Your task to perform on an android device: delete location history Image 0: 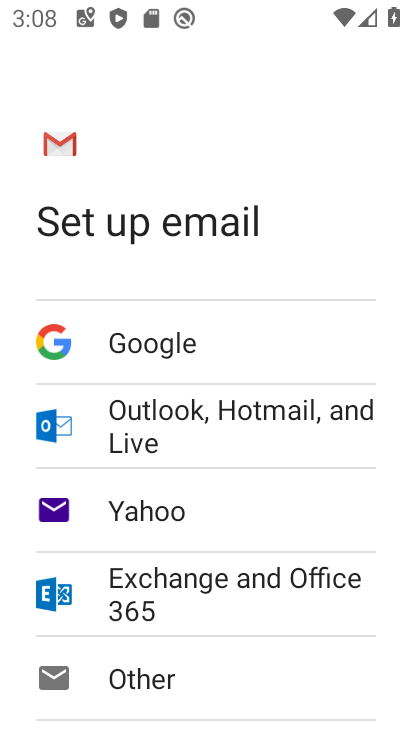
Step 0: press home button
Your task to perform on an android device: delete location history Image 1: 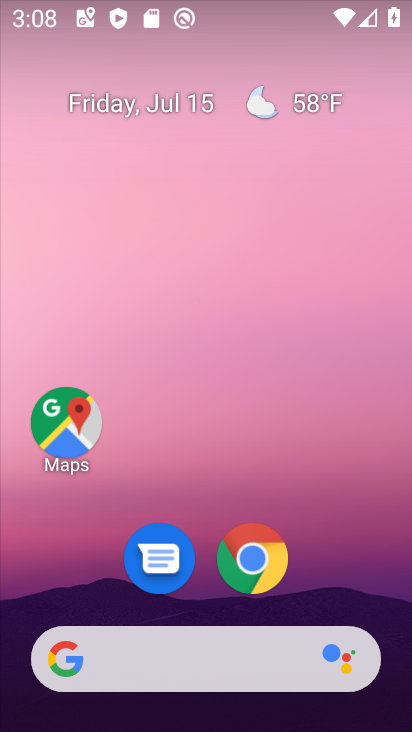
Step 1: drag from (340, 593) to (365, 69)
Your task to perform on an android device: delete location history Image 2: 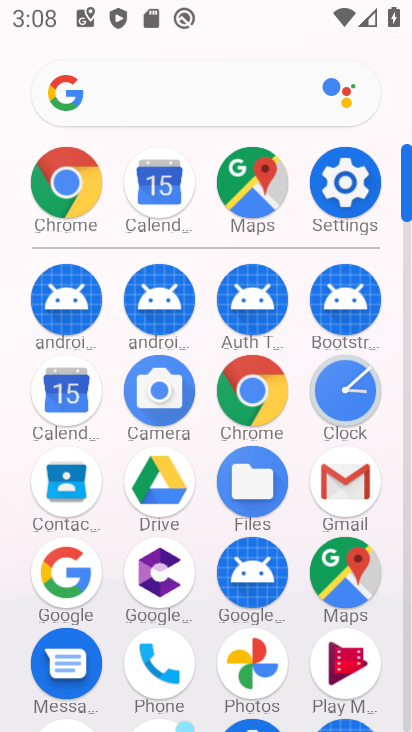
Step 2: click (262, 184)
Your task to perform on an android device: delete location history Image 3: 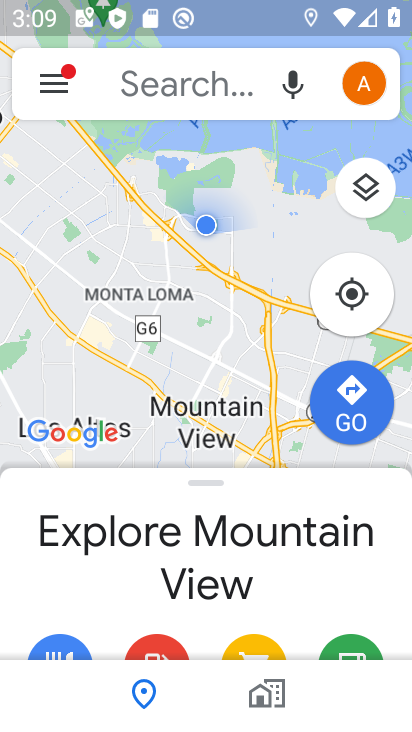
Step 3: click (54, 88)
Your task to perform on an android device: delete location history Image 4: 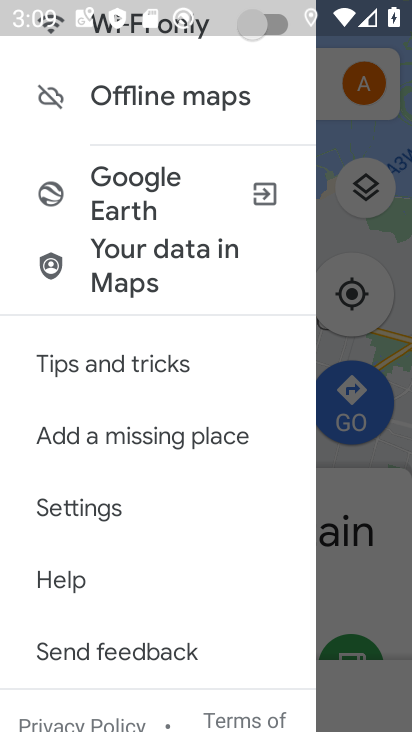
Step 4: drag from (197, 222) to (208, 379)
Your task to perform on an android device: delete location history Image 5: 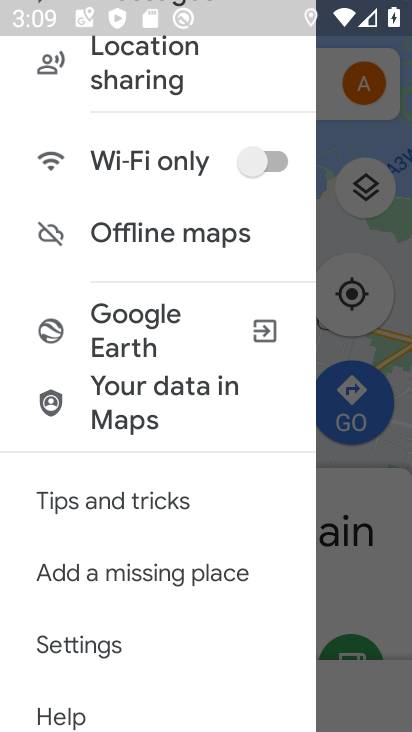
Step 5: drag from (195, 176) to (193, 345)
Your task to perform on an android device: delete location history Image 6: 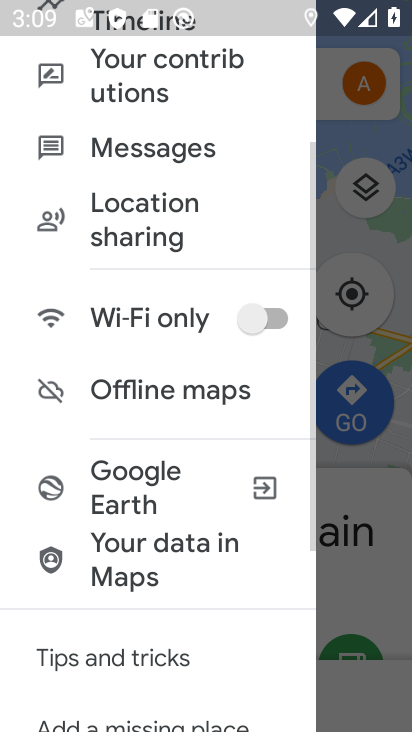
Step 6: drag from (199, 154) to (202, 342)
Your task to perform on an android device: delete location history Image 7: 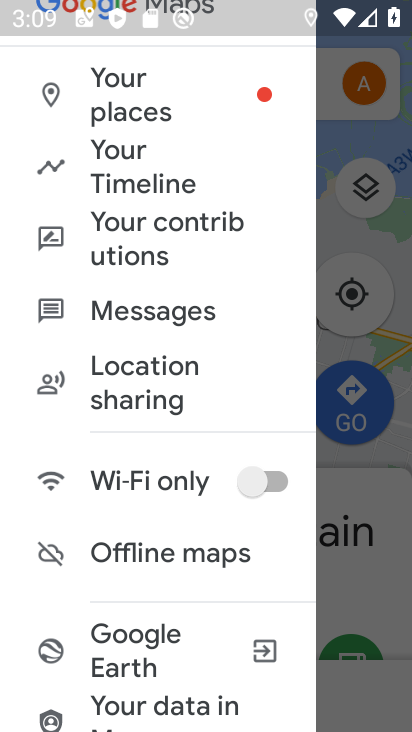
Step 7: drag from (192, 129) to (185, 366)
Your task to perform on an android device: delete location history Image 8: 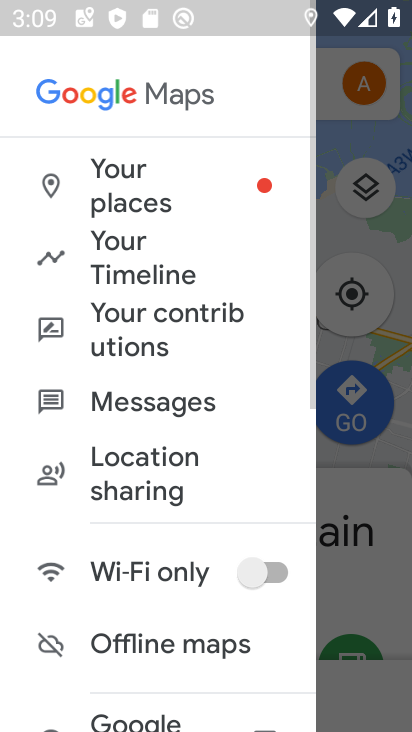
Step 8: click (156, 260)
Your task to perform on an android device: delete location history Image 9: 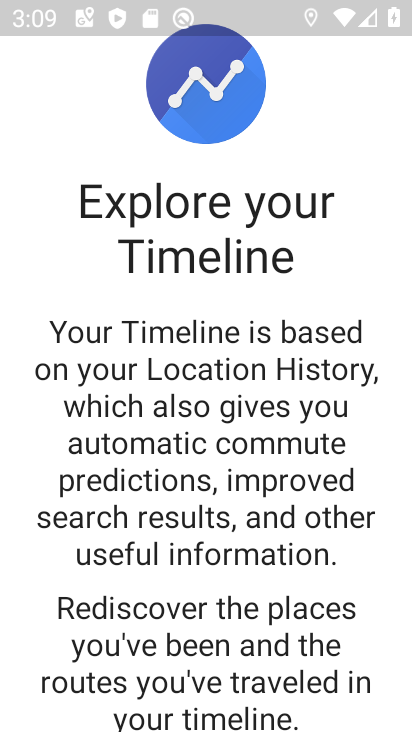
Step 9: drag from (269, 483) to (279, 335)
Your task to perform on an android device: delete location history Image 10: 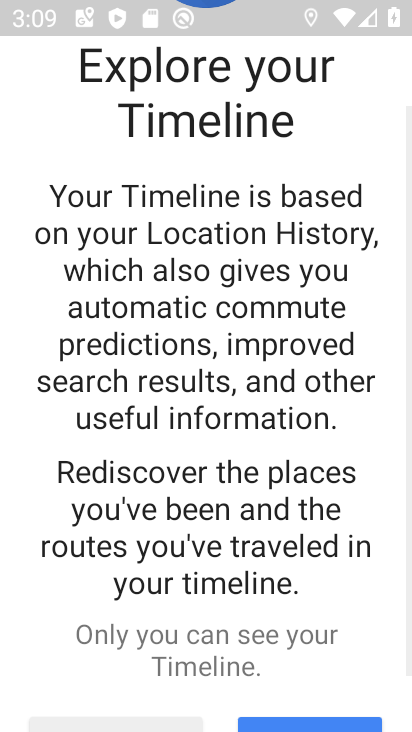
Step 10: drag from (292, 540) to (298, 349)
Your task to perform on an android device: delete location history Image 11: 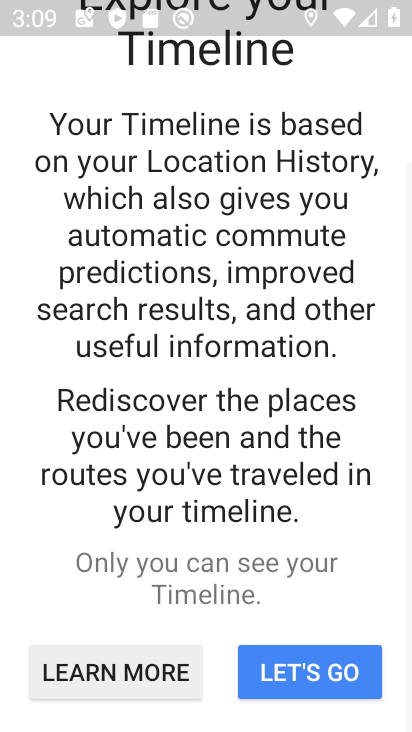
Step 11: click (319, 674)
Your task to perform on an android device: delete location history Image 12: 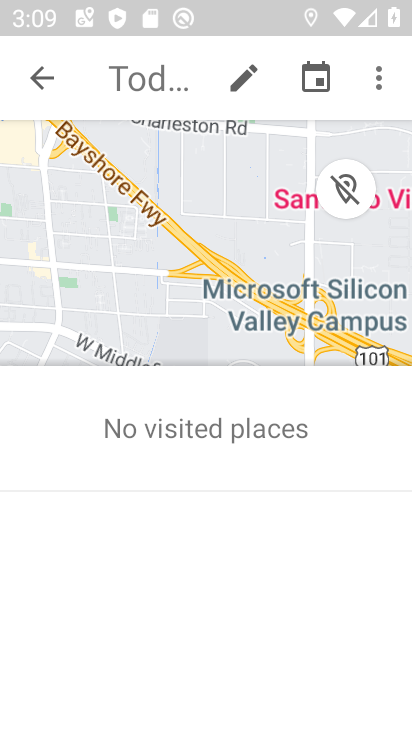
Step 12: click (377, 82)
Your task to perform on an android device: delete location history Image 13: 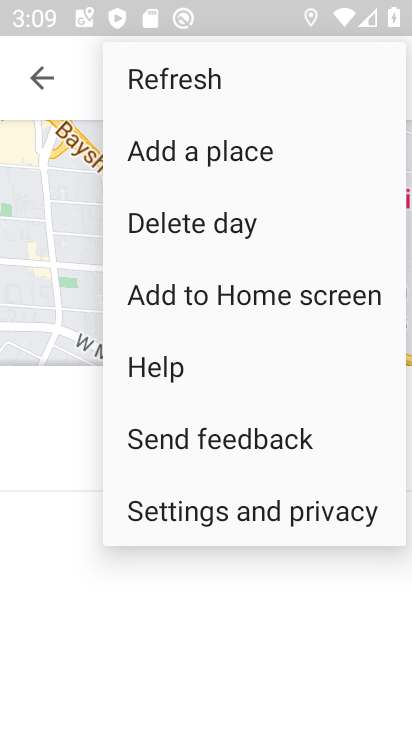
Step 13: click (348, 515)
Your task to perform on an android device: delete location history Image 14: 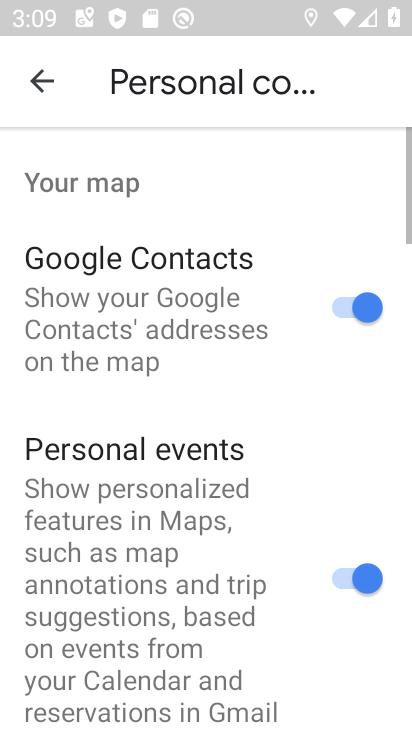
Step 14: drag from (292, 592) to (289, 469)
Your task to perform on an android device: delete location history Image 15: 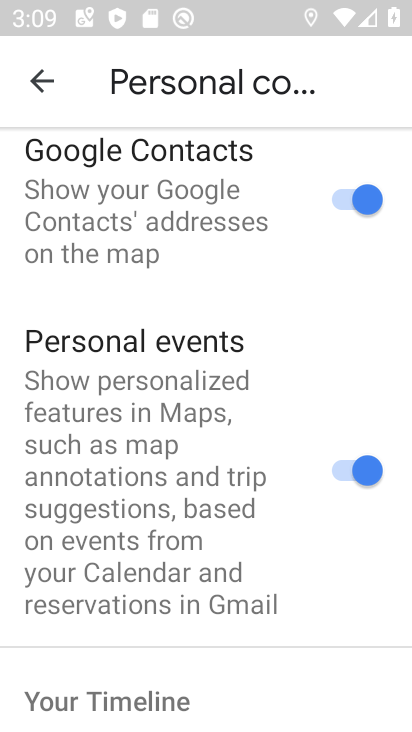
Step 15: drag from (309, 595) to (319, 307)
Your task to perform on an android device: delete location history Image 16: 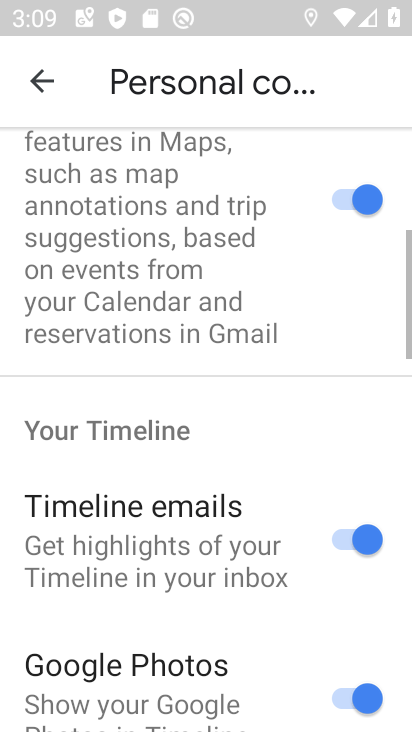
Step 16: drag from (282, 606) to (282, 422)
Your task to perform on an android device: delete location history Image 17: 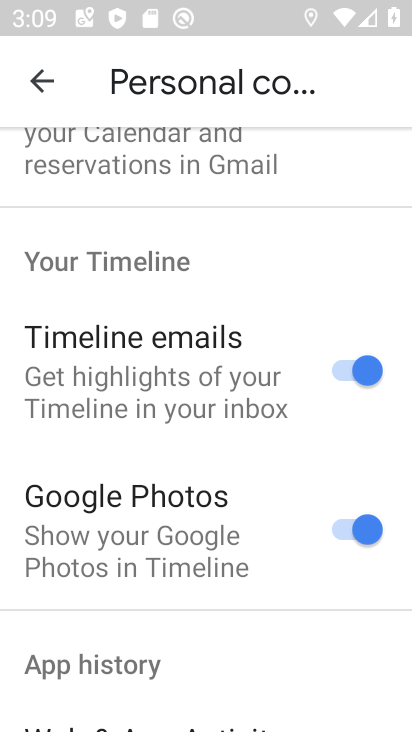
Step 17: drag from (260, 602) to (261, 464)
Your task to perform on an android device: delete location history Image 18: 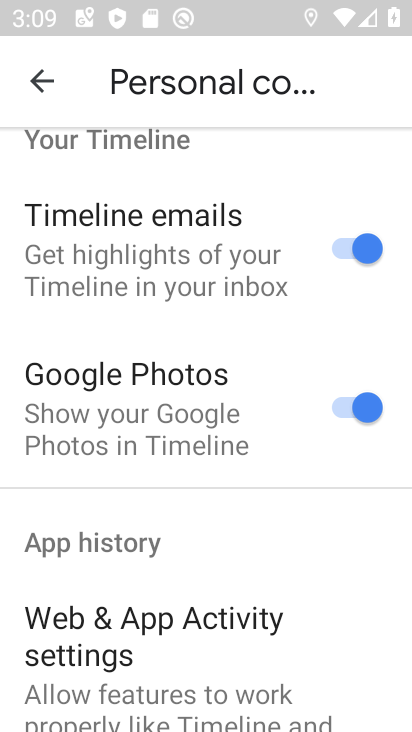
Step 18: drag from (264, 657) to (272, 474)
Your task to perform on an android device: delete location history Image 19: 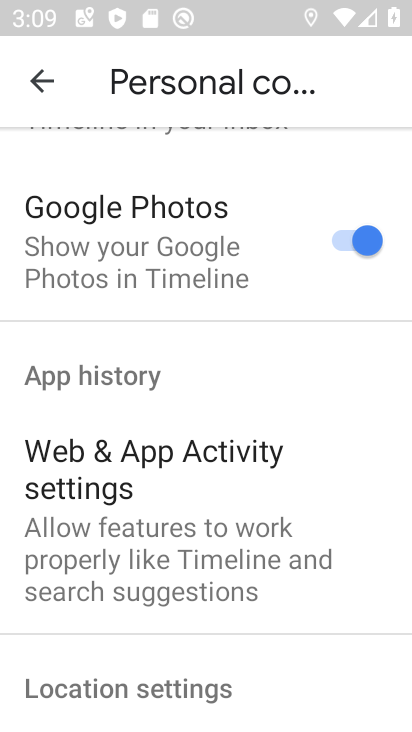
Step 19: drag from (281, 654) to (283, 482)
Your task to perform on an android device: delete location history Image 20: 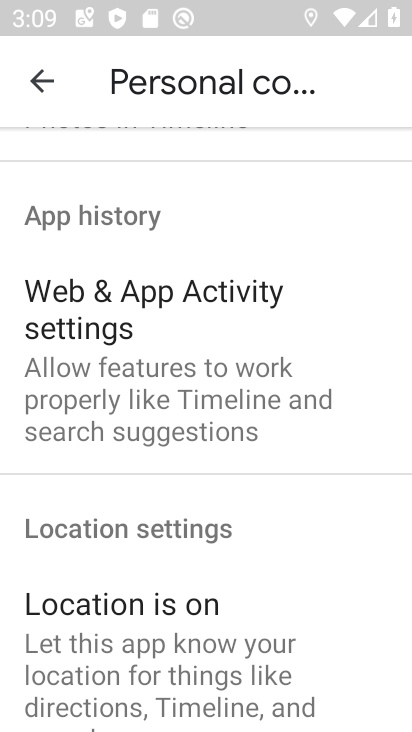
Step 20: drag from (328, 674) to (329, 484)
Your task to perform on an android device: delete location history Image 21: 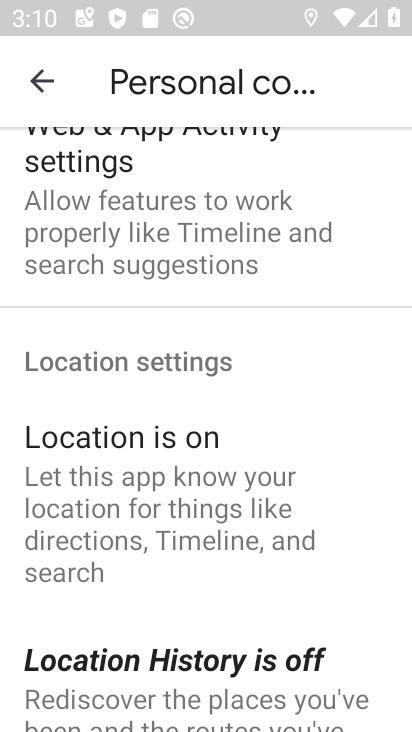
Step 21: drag from (340, 594) to (345, 327)
Your task to perform on an android device: delete location history Image 22: 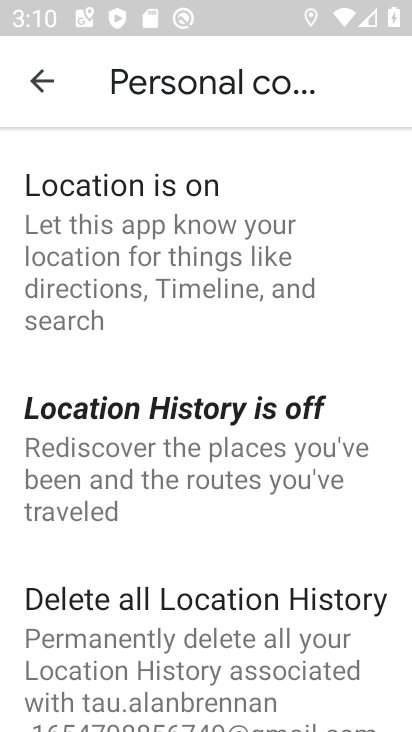
Step 22: drag from (348, 702) to (354, 488)
Your task to perform on an android device: delete location history Image 23: 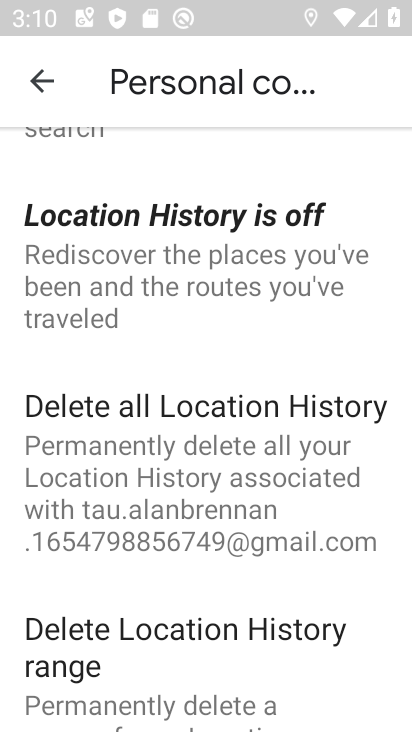
Step 23: click (213, 494)
Your task to perform on an android device: delete location history Image 24: 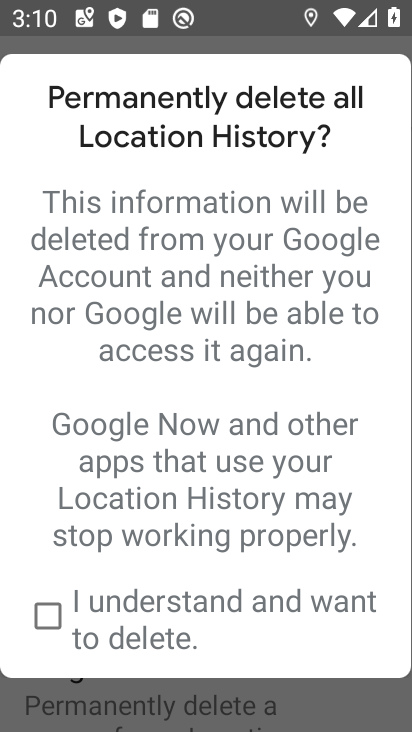
Step 24: click (50, 628)
Your task to perform on an android device: delete location history Image 25: 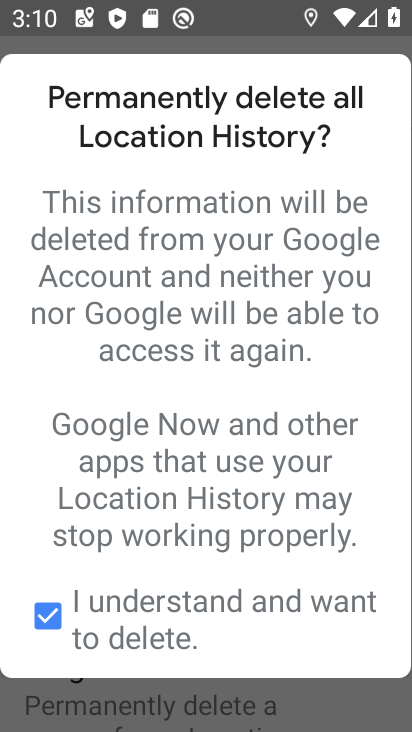
Step 25: task complete